Your task to perform on an android device: Go to Reddit.com Image 0: 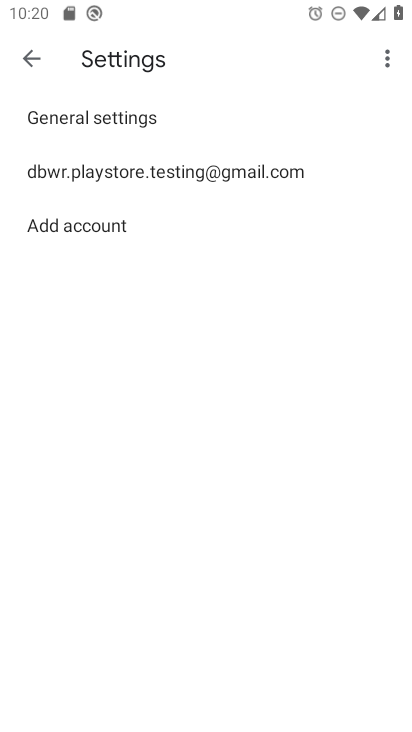
Step 0: press home button
Your task to perform on an android device: Go to Reddit.com Image 1: 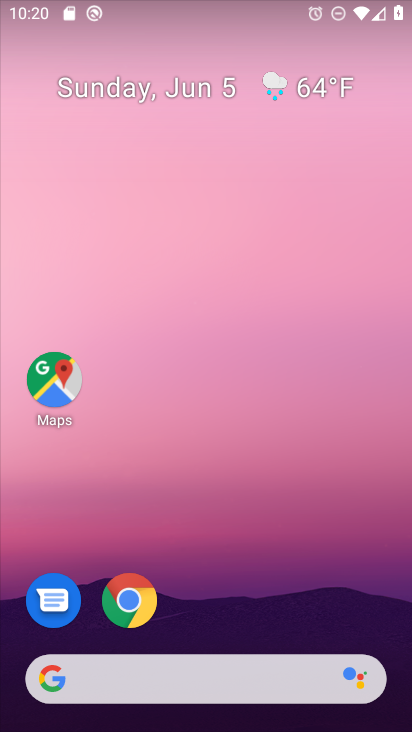
Step 1: drag from (399, 608) to (273, 20)
Your task to perform on an android device: Go to Reddit.com Image 2: 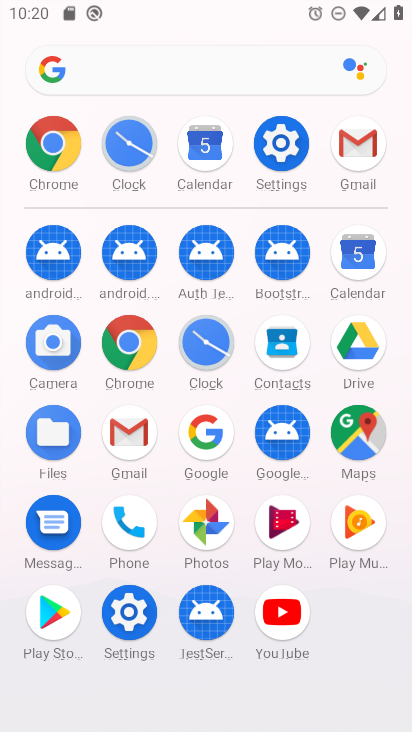
Step 2: click (211, 428)
Your task to perform on an android device: Go to Reddit.com Image 3: 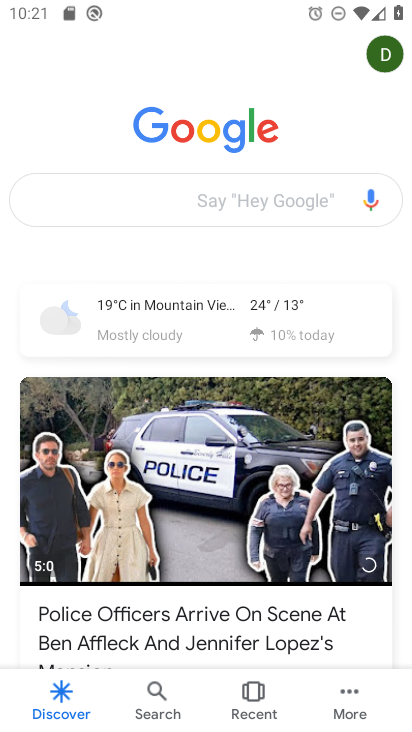
Step 3: click (162, 203)
Your task to perform on an android device: Go to Reddit.com Image 4: 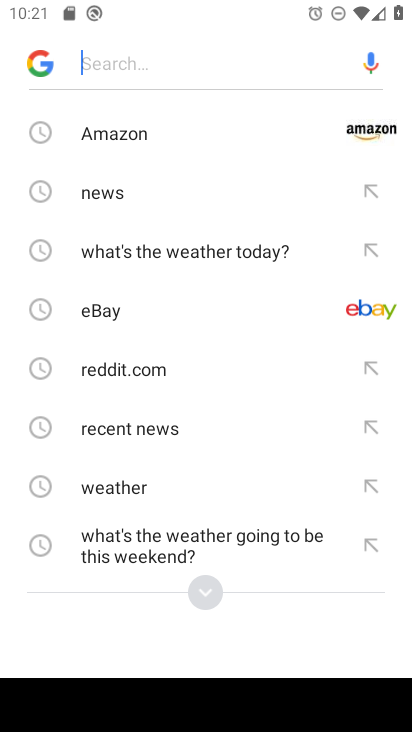
Step 4: click (143, 368)
Your task to perform on an android device: Go to Reddit.com Image 5: 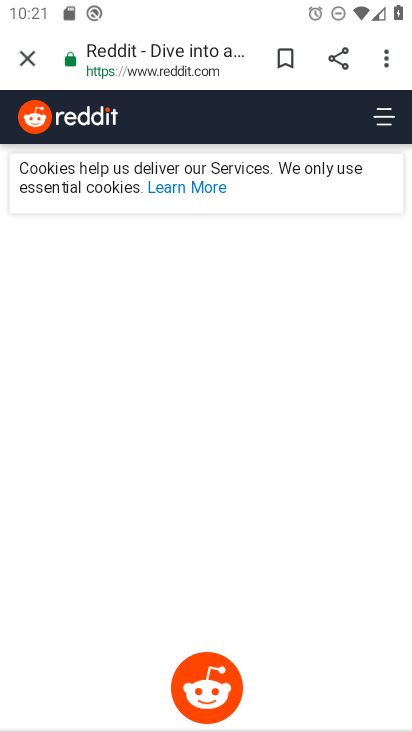
Step 5: task complete